Your task to perform on an android device: Search for logitech g903 on target, select the first entry, and add it to the cart. Image 0: 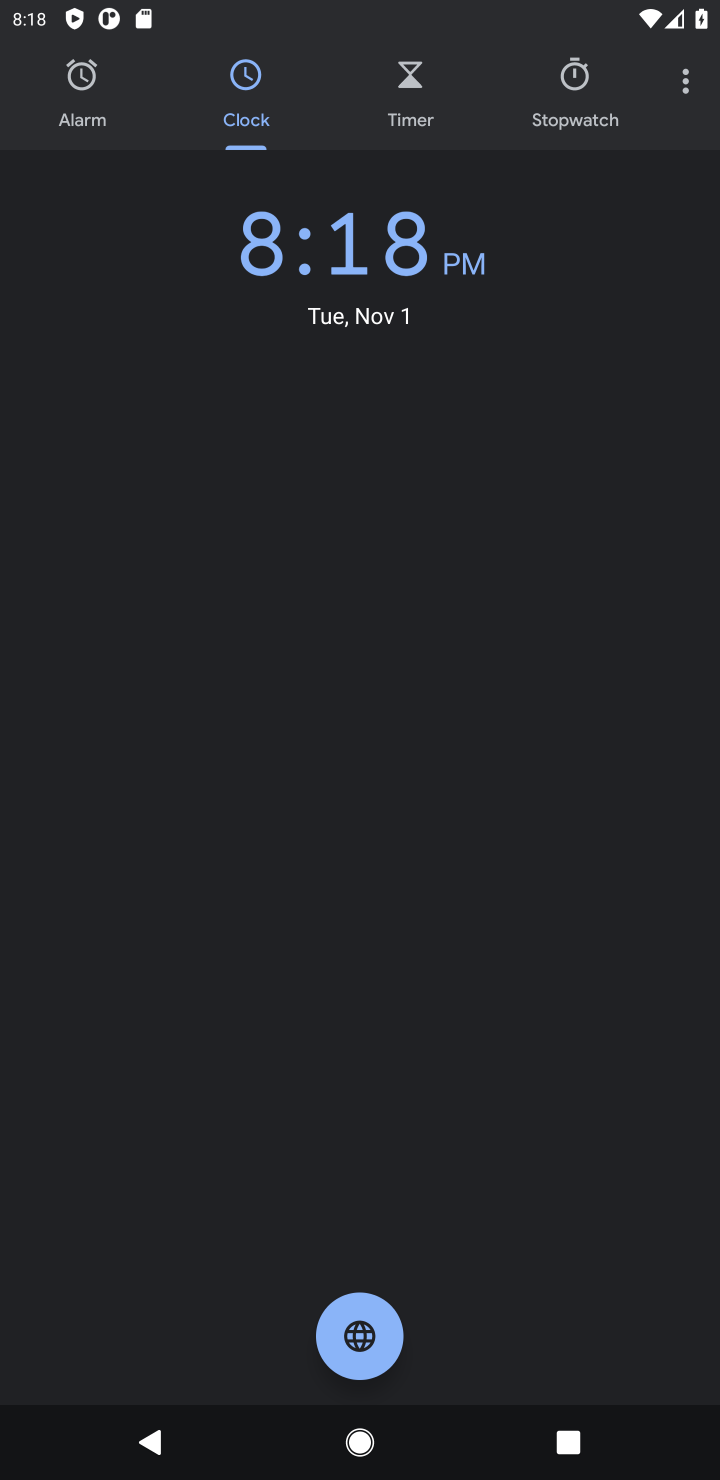
Step 0: press home button
Your task to perform on an android device: Search for logitech g903 on target, select the first entry, and add it to the cart. Image 1: 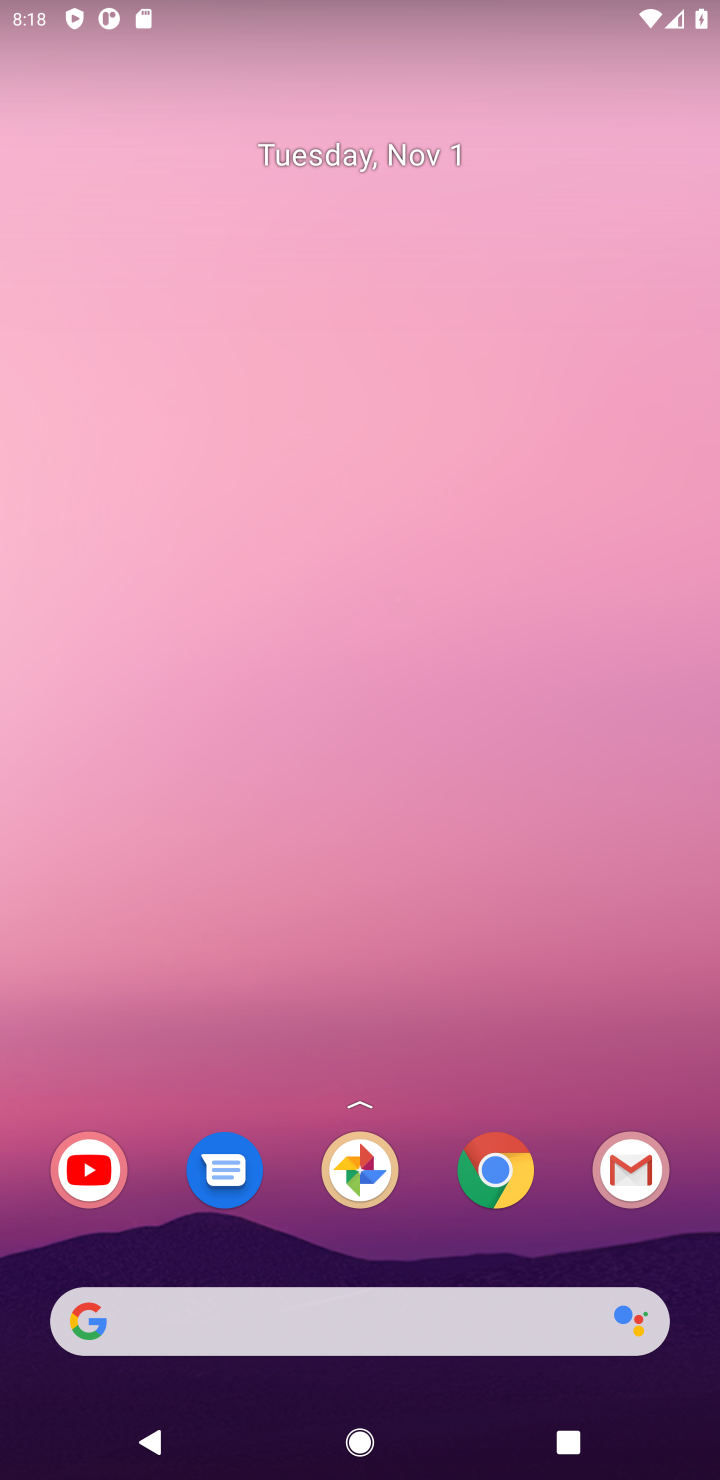
Step 1: click (487, 1180)
Your task to perform on an android device: Search for logitech g903 on target, select the first entry, and add it to the cart. Image 2: 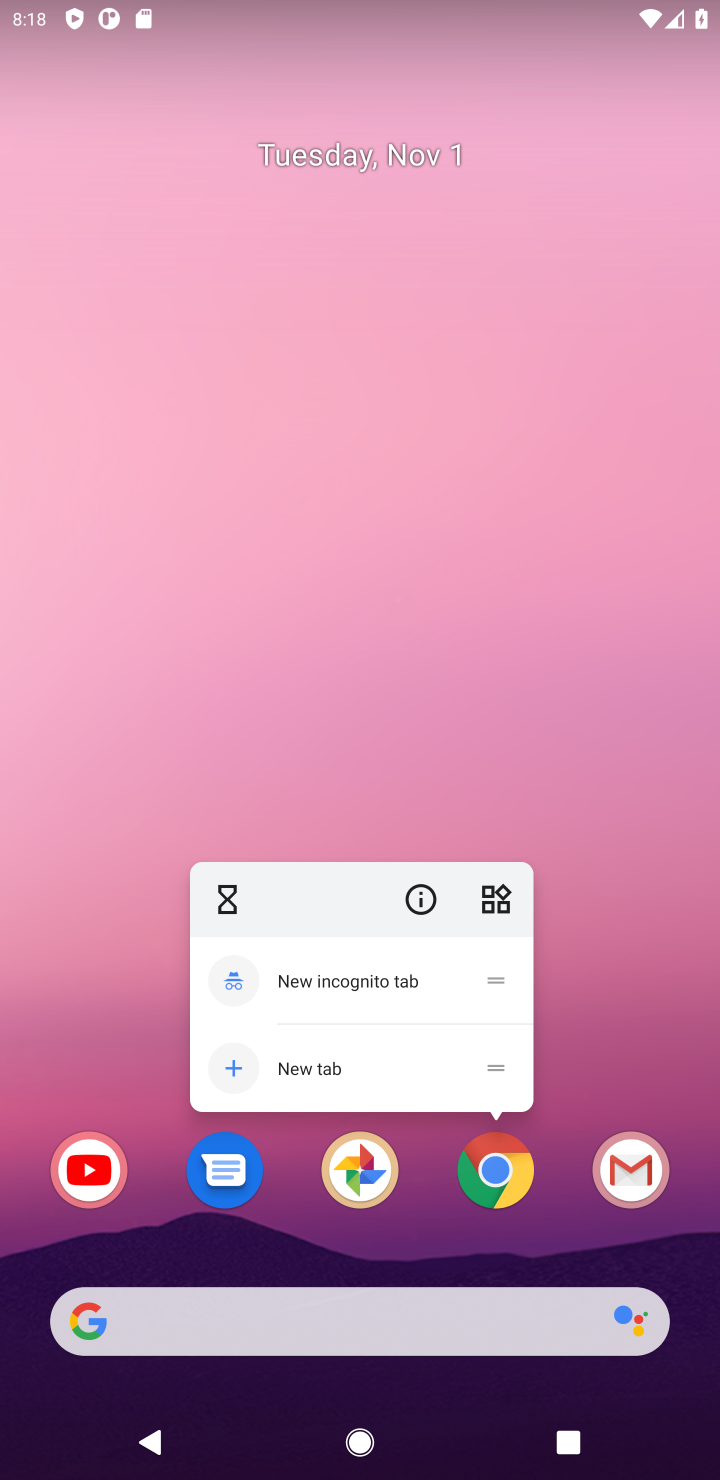
Step 2: click (510, 1193)
Your task to perform on an android device: Search for logitech g903 on target, select the first entry, and add it to the cart. Image 3: 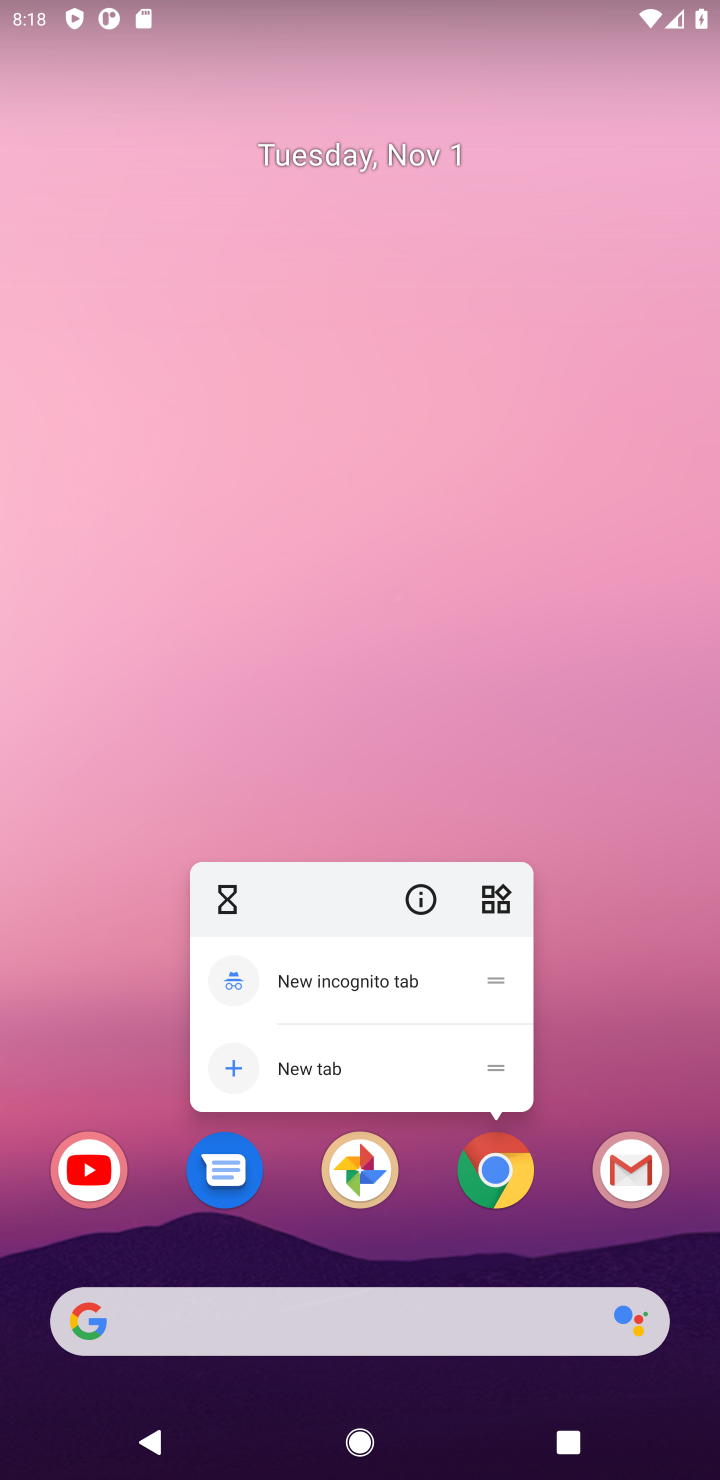
Step 3: click (511, 1179)
Your task to perform on an android device: Search for logitech g903 on target, select the first entry, and add it to the cart. Image 4: 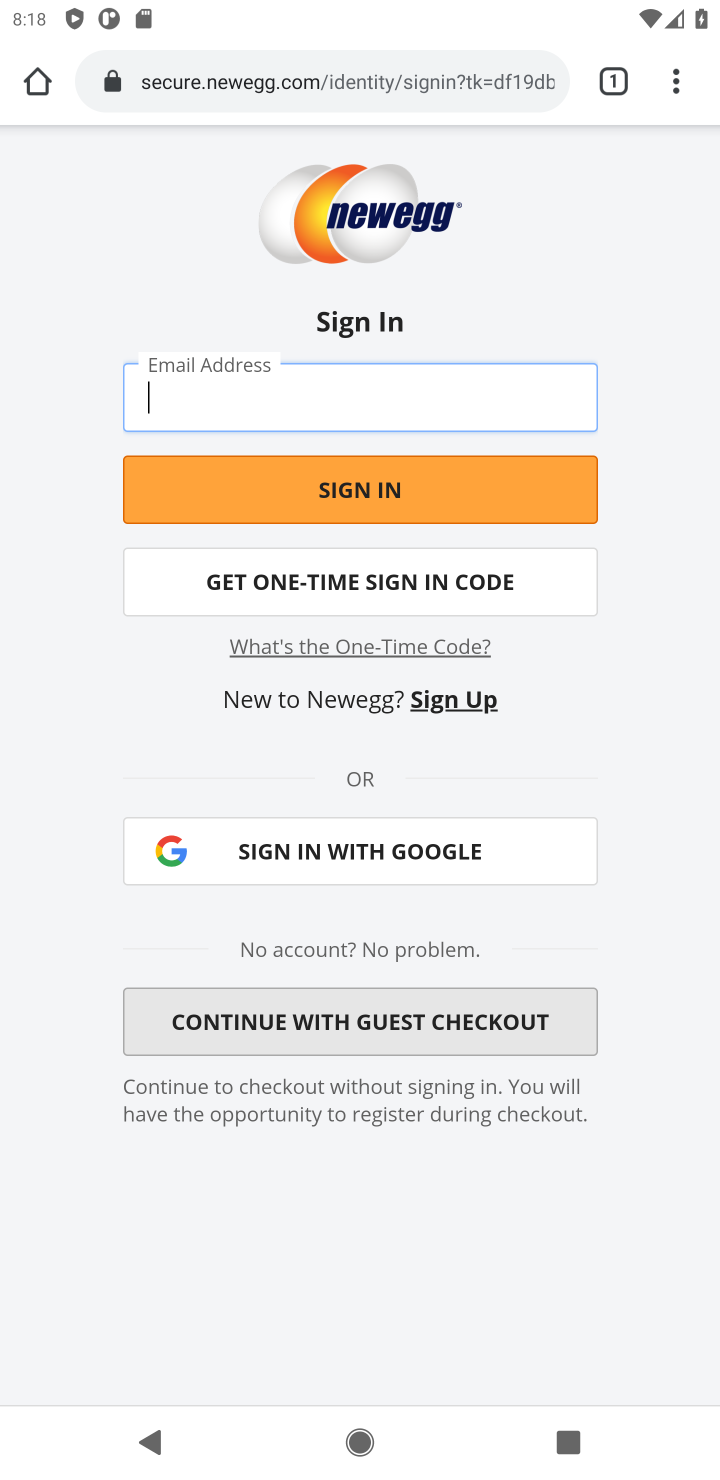
Step 4: click (417, 93)
Your task to perform on an android device: Search for logitech g903 on target, select the first entry, and add it to the cart. Image 5: 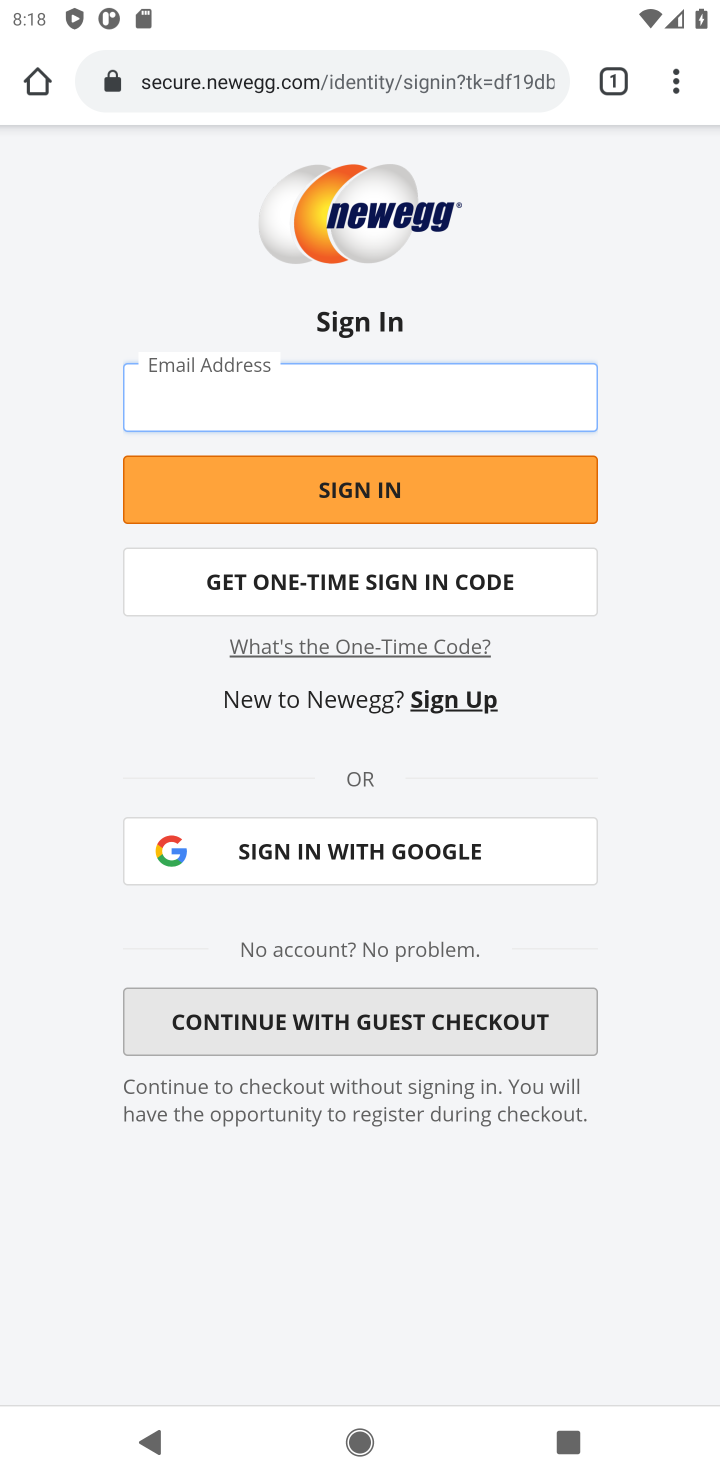
Step 5: click (374, 84)
Your task to perform on an android device: Search for logitech g903 on target, select the first entry, and add it to the cart. Image 6: 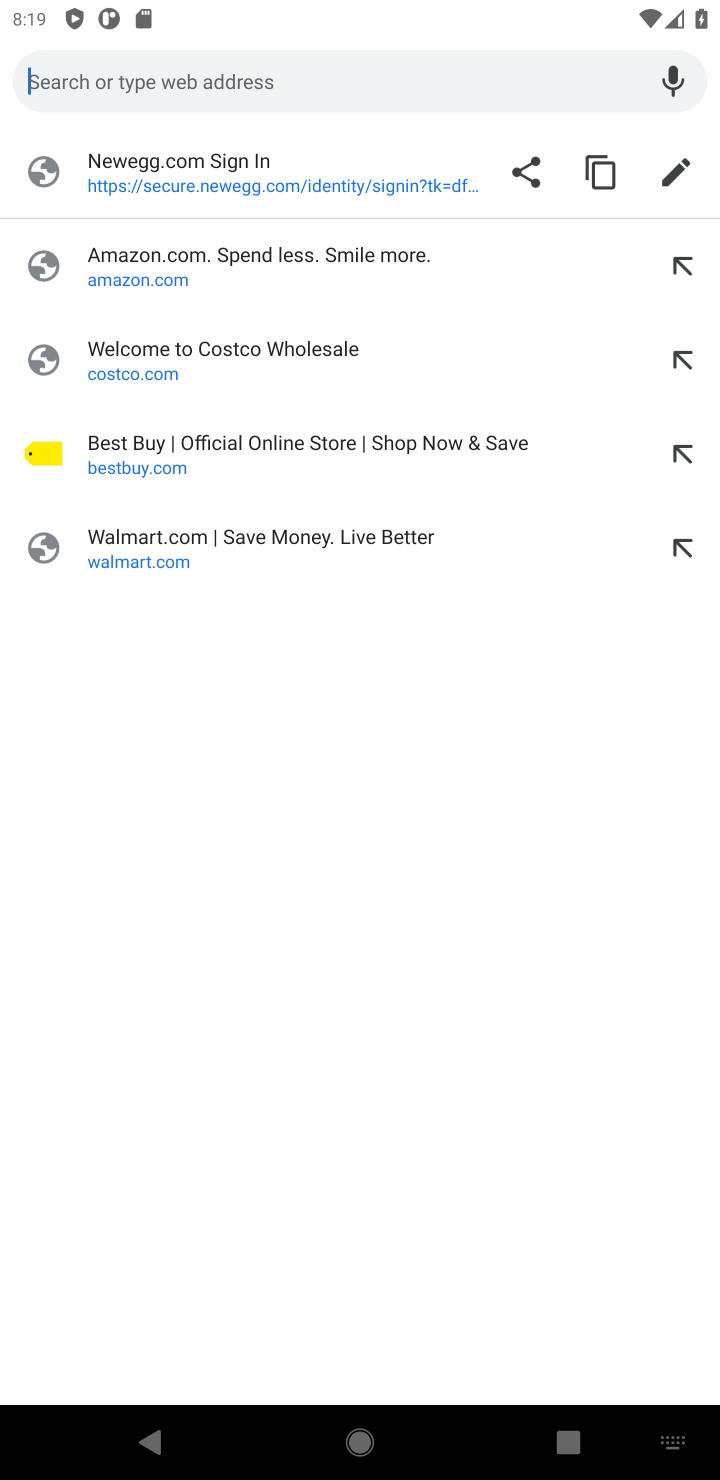
Step 6: type "target"
Your task to perform on an android device: Search for logitech g903 on target, select the first entry, and add it to the cart. Image 7: 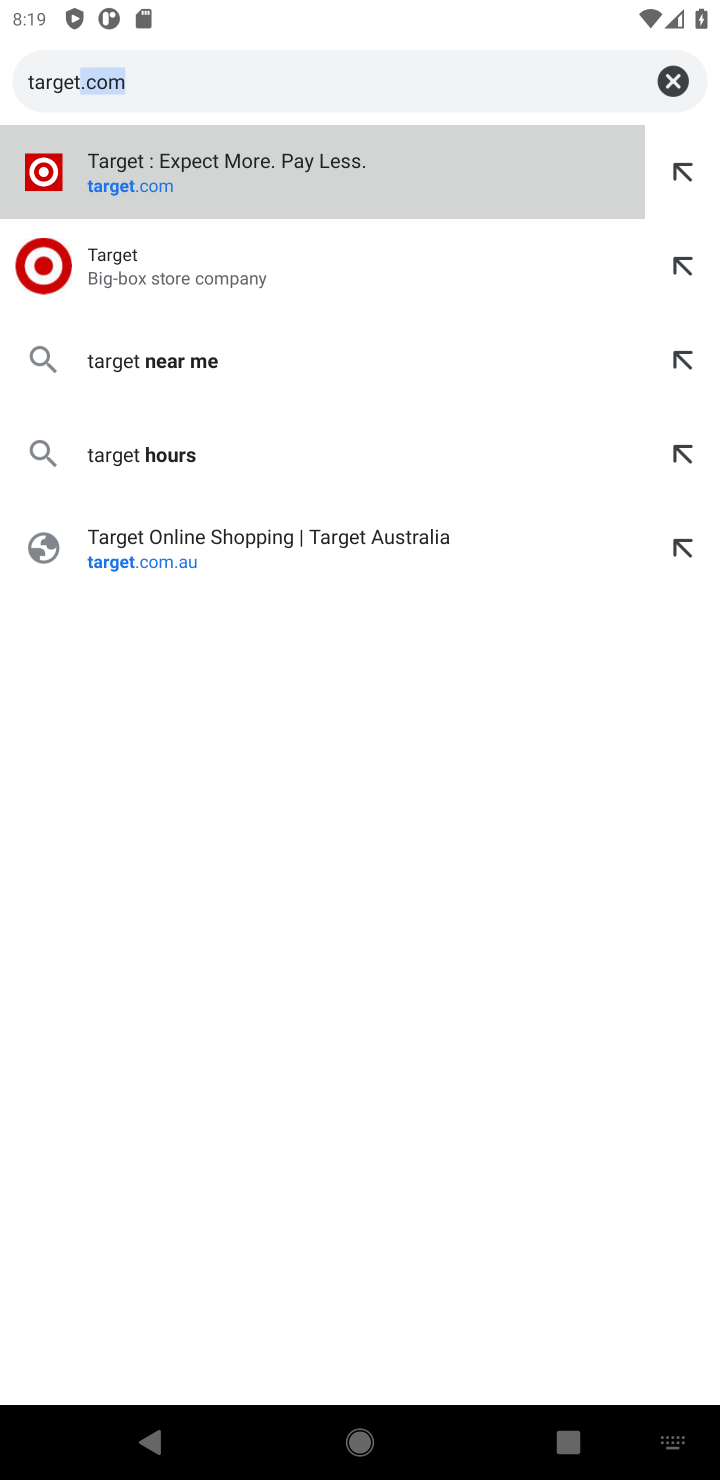
Step 7: type ""
Your task to perform on an android device: Search for logitech g903 on target, select the first entry, and add it to the cart. Image 8: 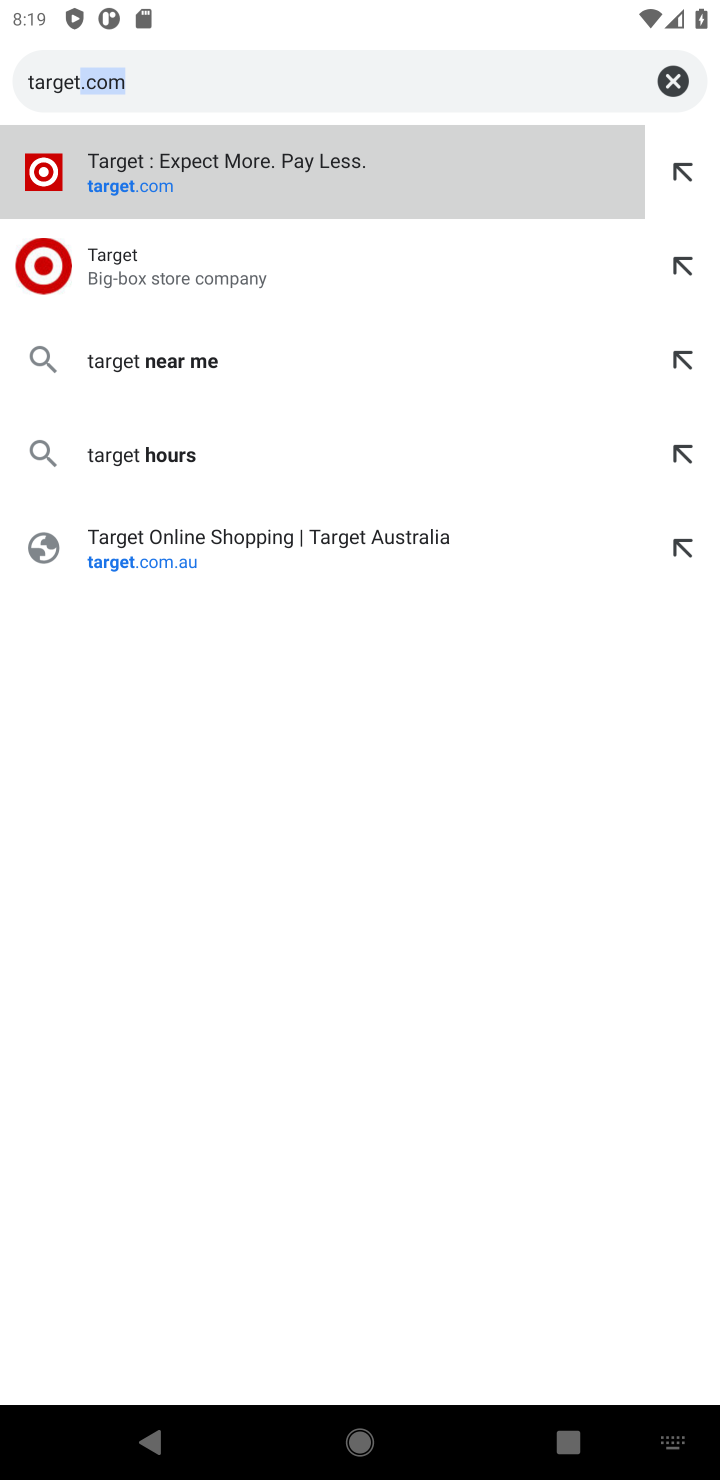
Step 8: press enter
Your task to perform on an android device: Search for logitech g903 on target, select the first entry, and add it to the cart. Image 9: 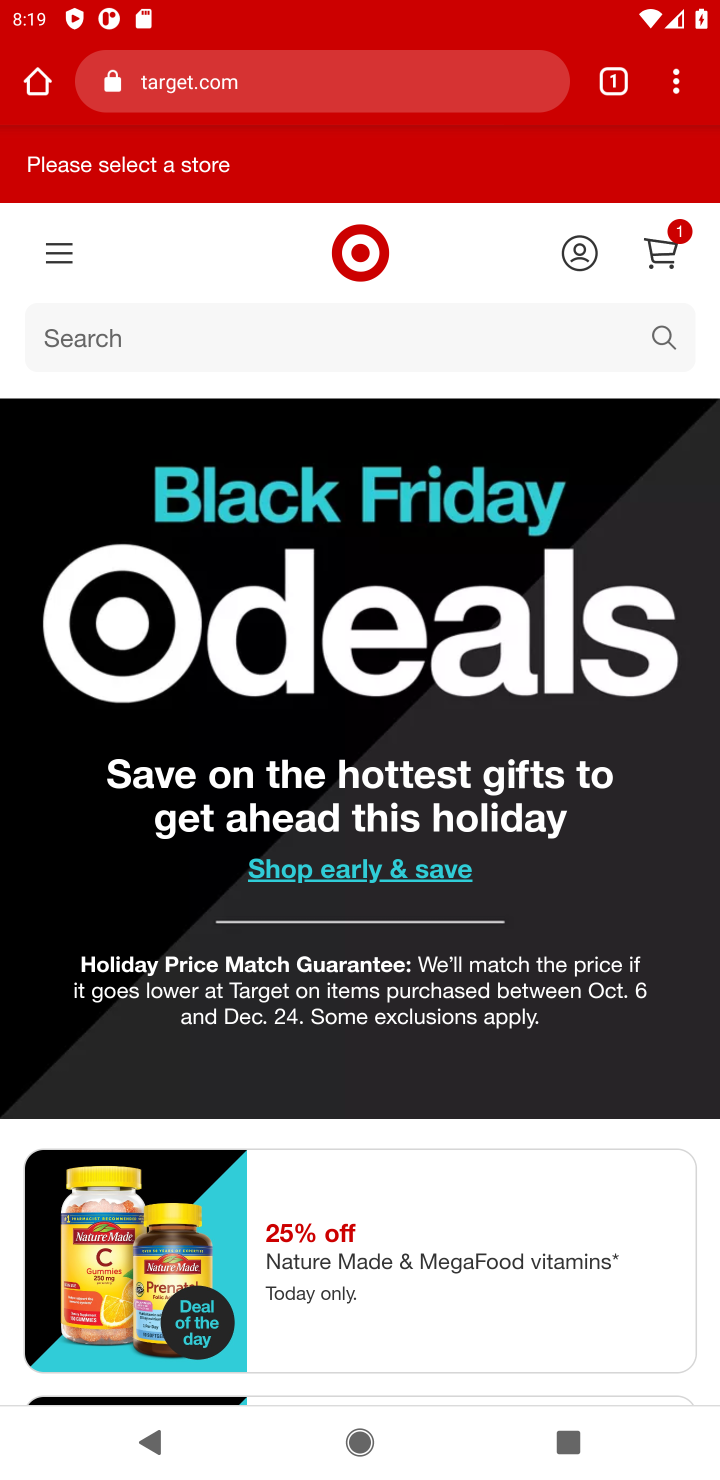
Step 9: click (304, 344)
Your task to perform on an android device: Search for logitech g903 on target, select the first entry, and add it to the cart. Image 10: 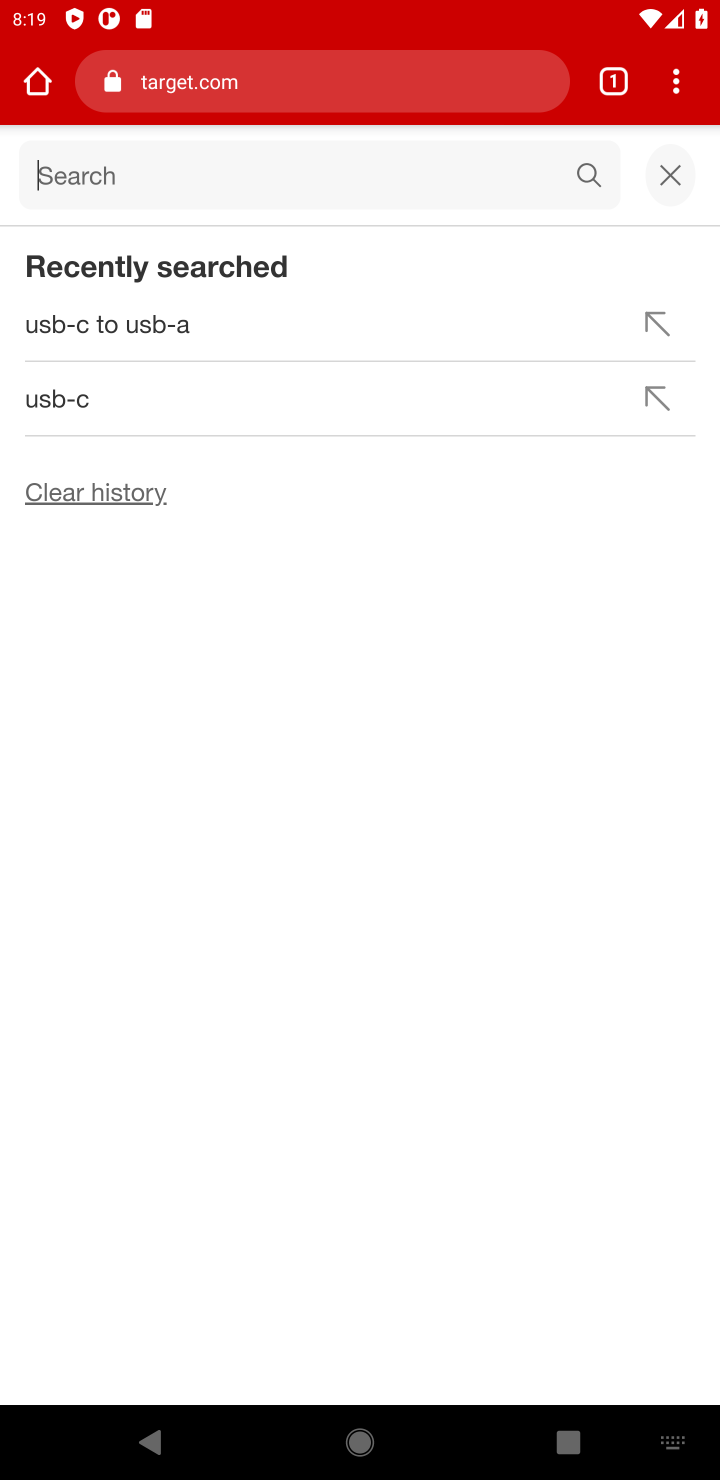
Step 10: type "logitech g903"
Your task to perform on an android device: Search for logitech g903 on target, select the first entry, and add it to the cart. Image 11: 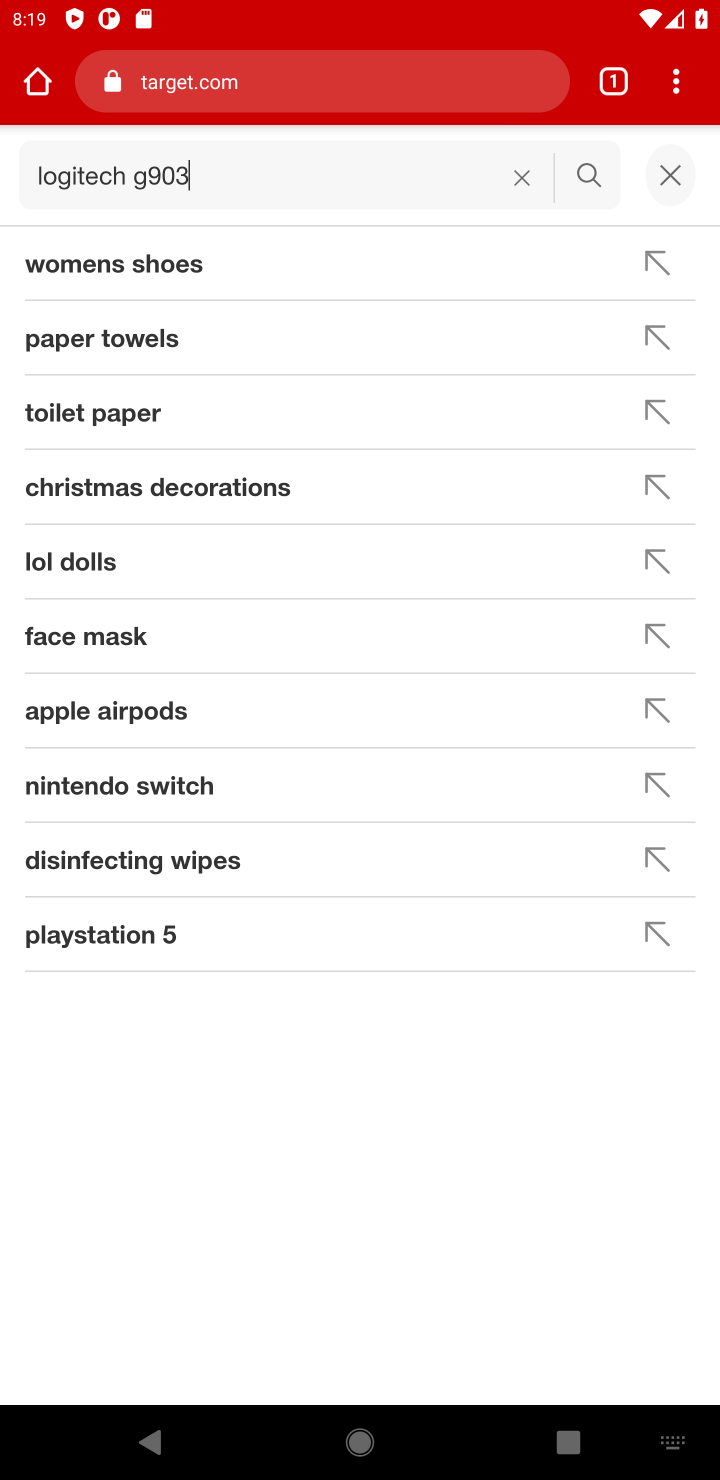
Step 11: type ""
Your task to perform on an android device: Search for logitech g903 on target, select the first entry, and add it to the cart. Image 12: 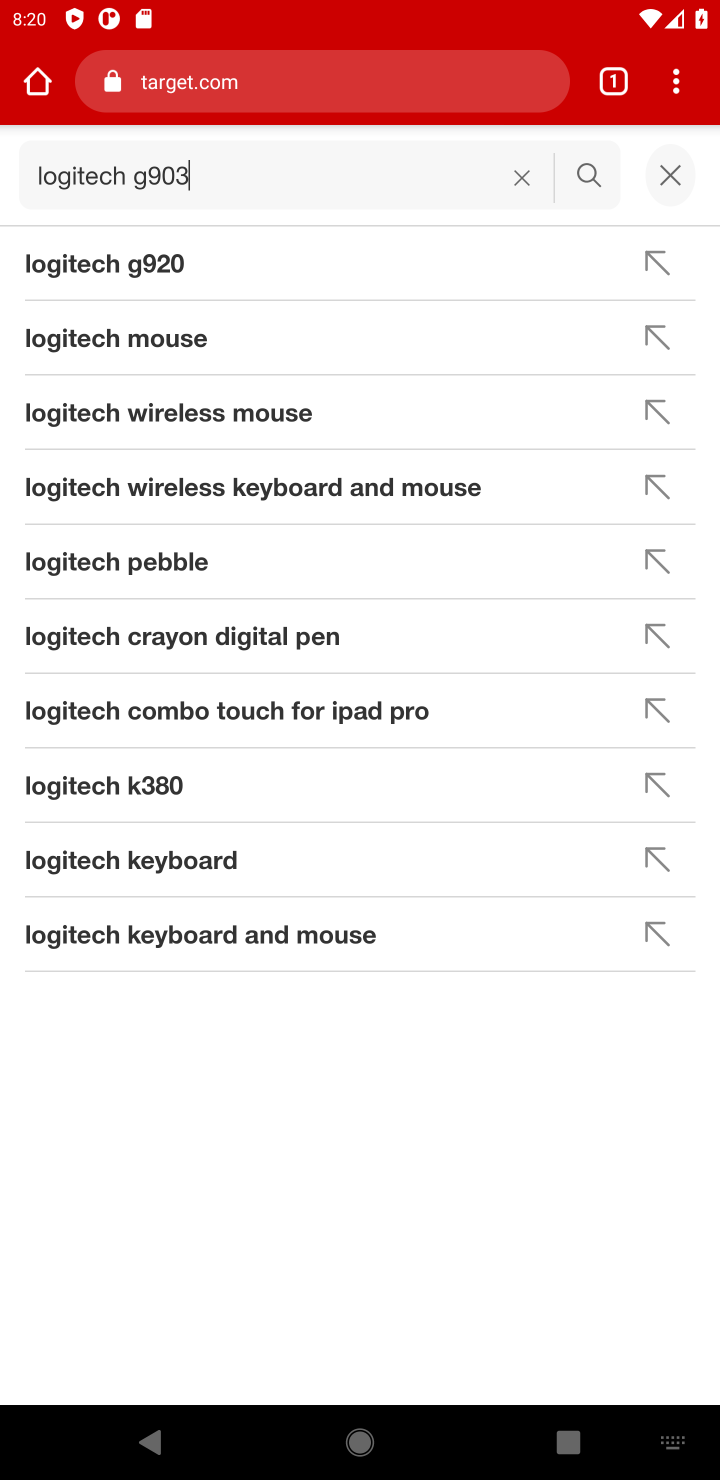
Step 12: press enter
Your task to perform on an android device: Search for logitech g903 on target, select the first entry, and add it to the cart. Image 13: 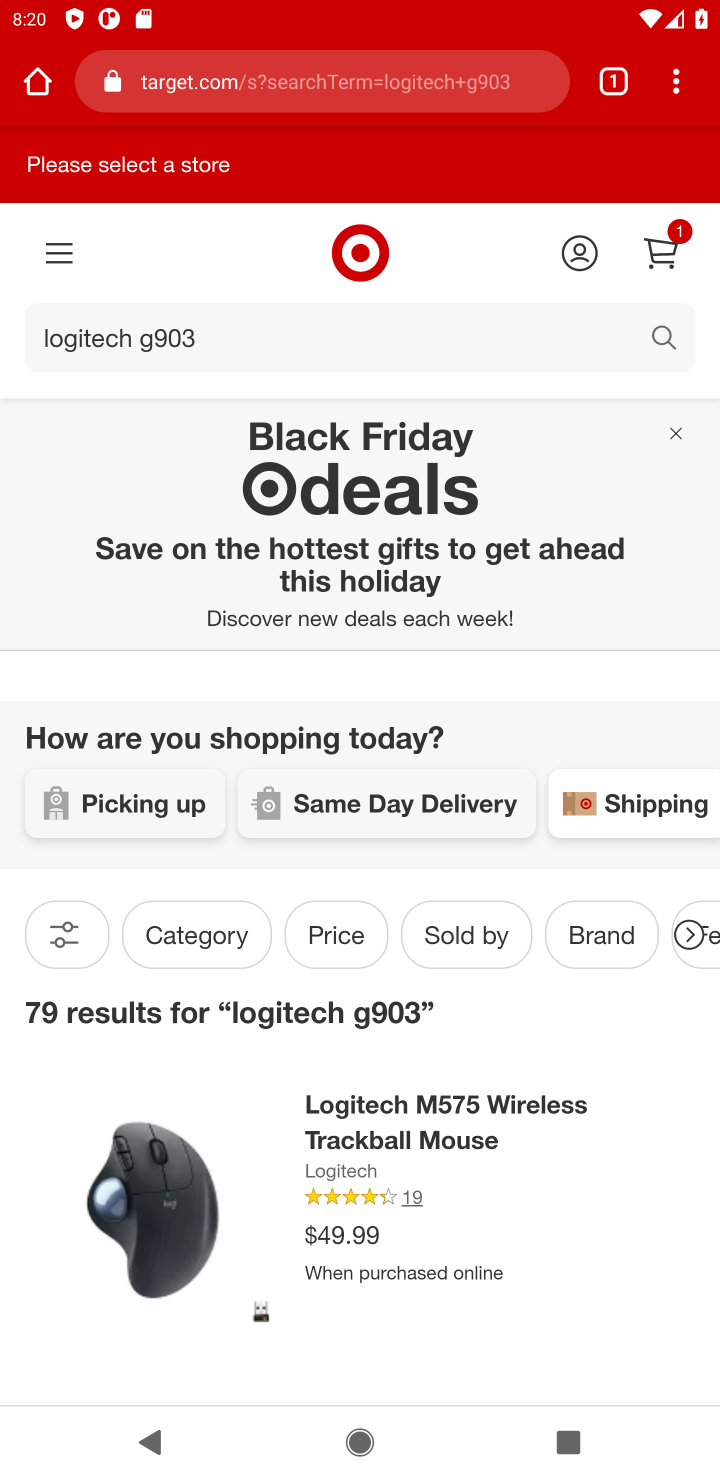
Step 13: task complete